Your task to perform on an android device: open chrome and create a bookmark for the current page Image 0: 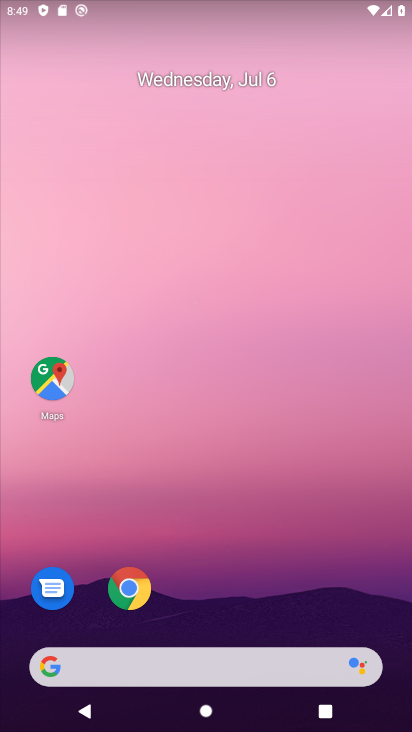
Step 0: drag from (157, 598) to (232, 122)
Your task to perform on an android device: open chrome and create a bookmark for the current page Image 1: 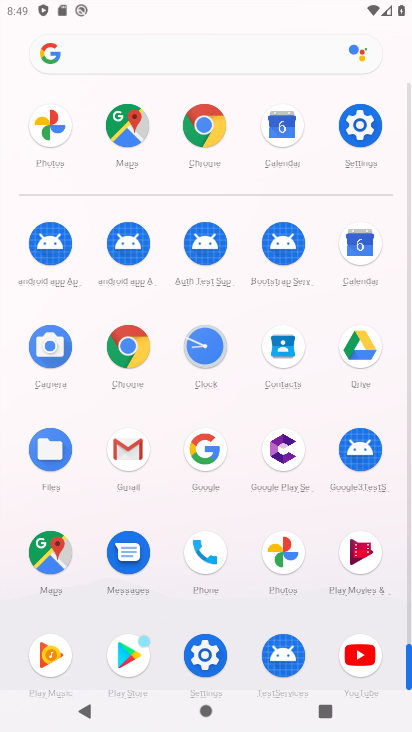
Step 1: click (129, 341)
Your task to perform on an android device: open chrome and create a bookmark for the current page Image 2: 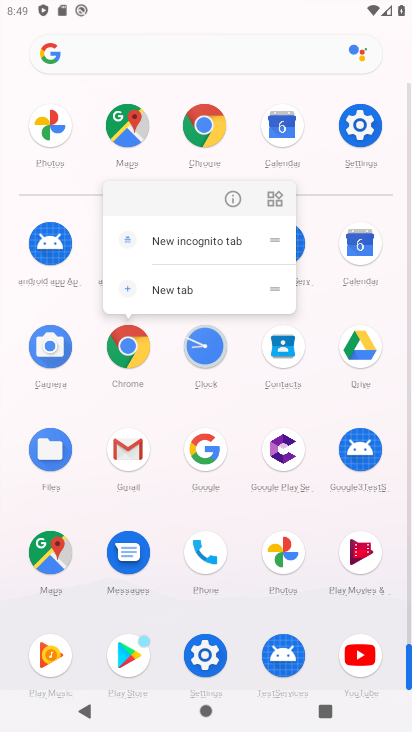
Step 2: click (232, 206)
Your task to perform on an android device: open chrome and create a bookmark for the current page Image 3: 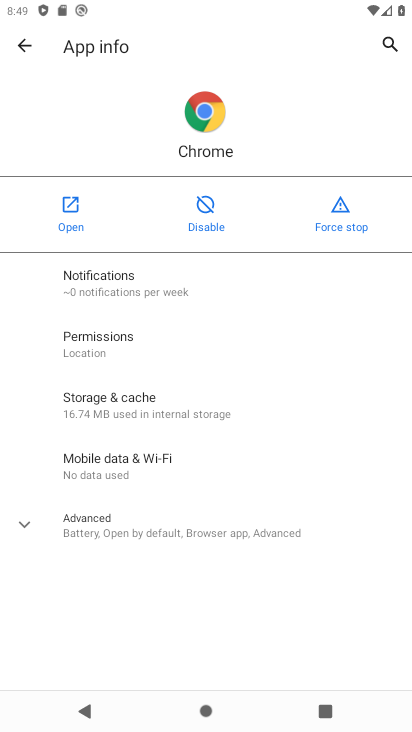
Step 3: click (78, 208)
Your task to perform on an android device: open chrome and create a bookmark for the current page Image 4: 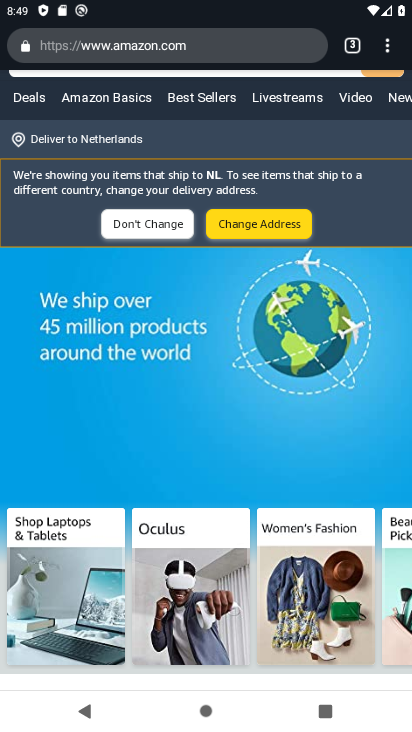
Step 4: click (385, 53)
Your task to perform on an android device: open chrome and create a bookmark for the current page Image 5: 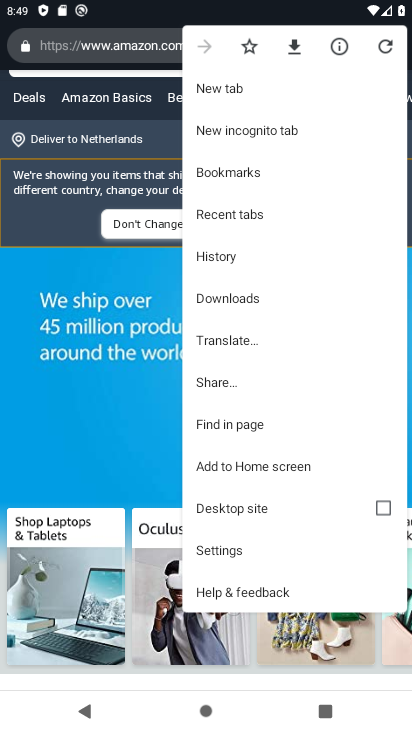
Step 5: click (246, 50)
Your task to perform on an android device: open chrome and create a bookmark for the current page Image 6: 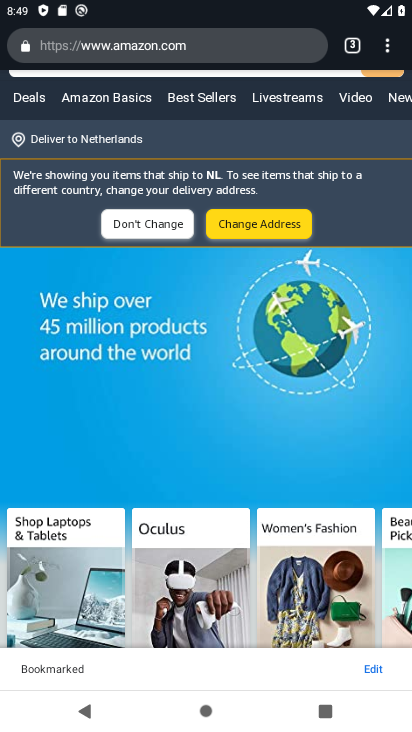
Step 6: task complete